Your task to perform on an android device: stop showing notifications on the lock screen Image 0: 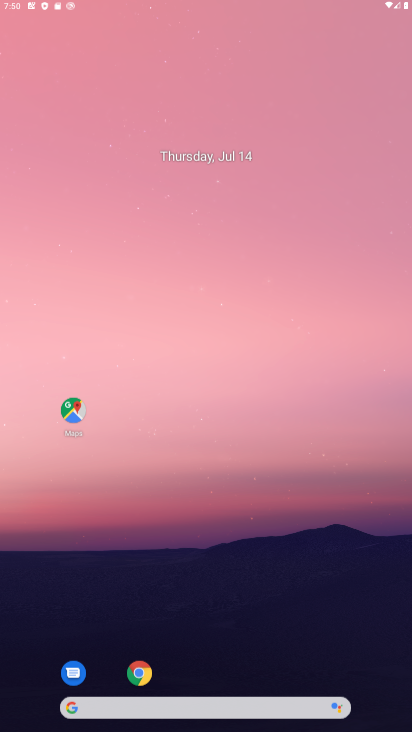
Step 0: drag from (311, 30) to (402, 1)
Your task to perform on an android device: stop showing notifications on the lock screen Image 1: 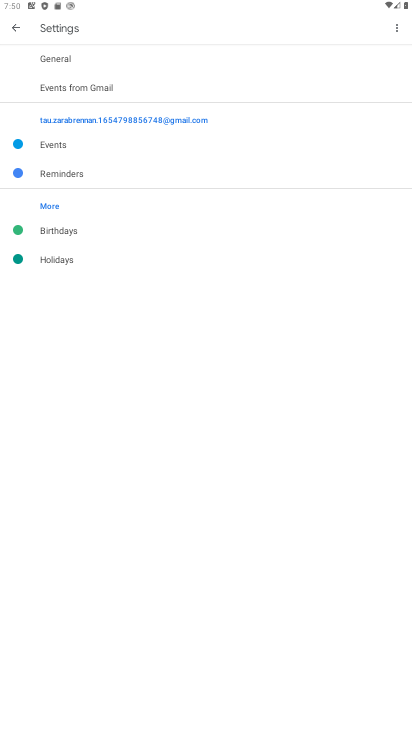
Step 1: press home button
Your task to perform on an android device: stop showing notifications on the lock screen Image 2: 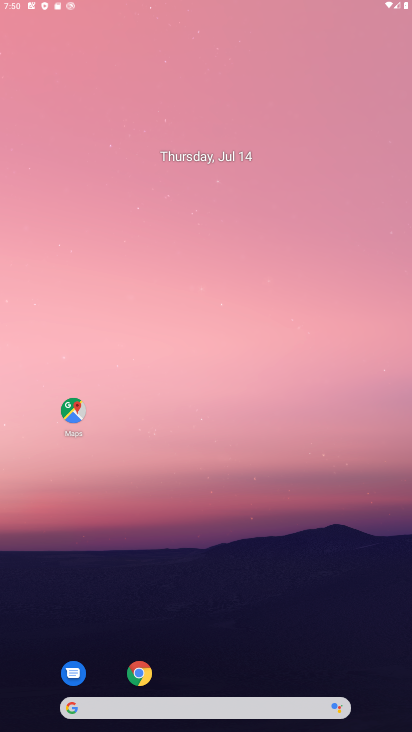
Step 2: drag from (154, 446) to (145, 55)
Your task to perform on an android device: stop showing notifications on the lock screen Image 3: 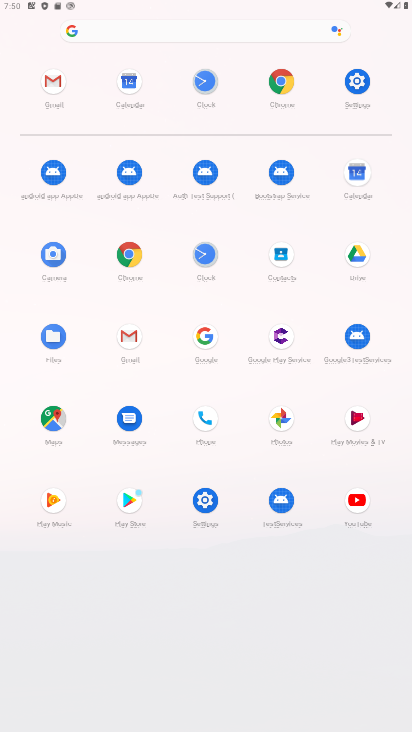
Step 3: click (202, 498)
Your task to perform on an android device: stop showing notifications on the lock screen Image 4: 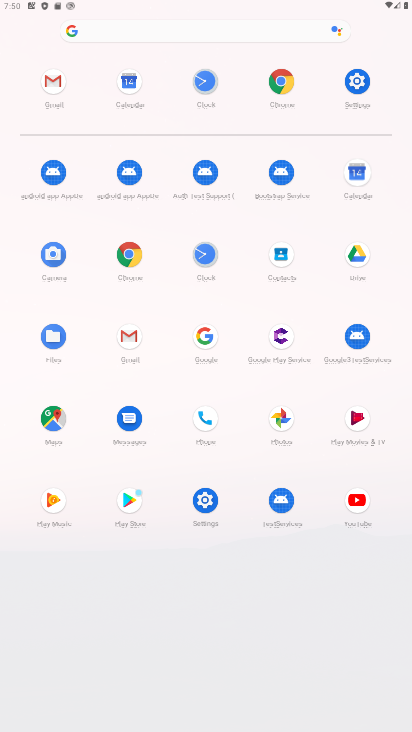
Step 4: click (201, 496)
Your task to perform on an android device: stop showing notifications on the lock screen Image 5: 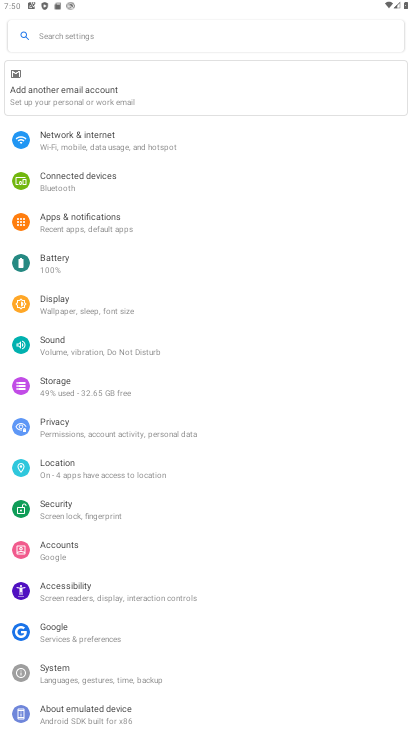
Step 5: click (126, 222)
Your task to perform on an android device: stop showing notifications on the lock screen Image 6: 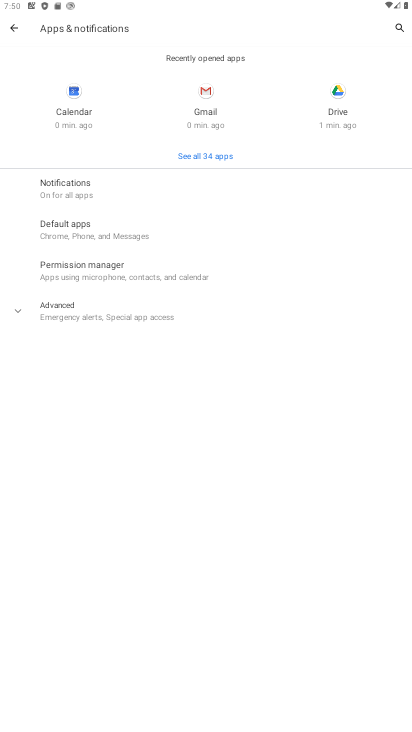
Step 6: click (108, 186)
Your task to perform on an android device: stop showing notifications on the lock screen Image 7: 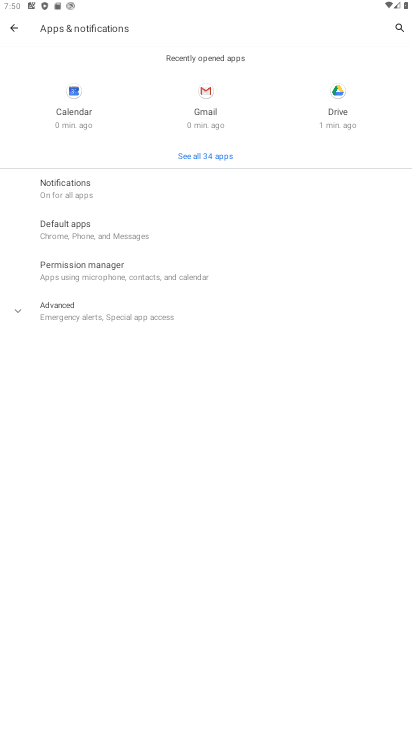
Step 7: click (108, 186)
Your task to perform on an android device: stop showing notifications on the lock screen Image 8: 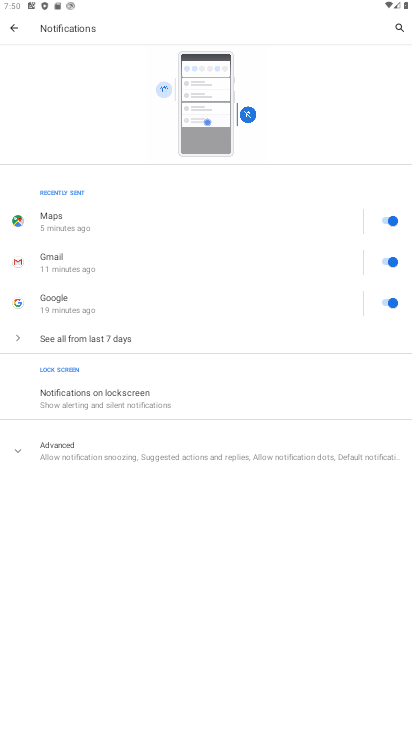
Step 8: click (123, 393)
Your task to perform on an android device: stop showing notifications on the lock screen Image 9: 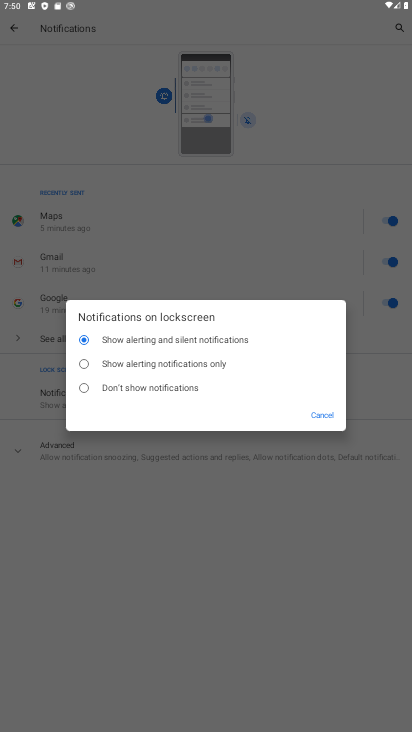
Step 9: click (116, 384)
Your task to perform on an android device: stop showing notifications on the lock screen Image 10: 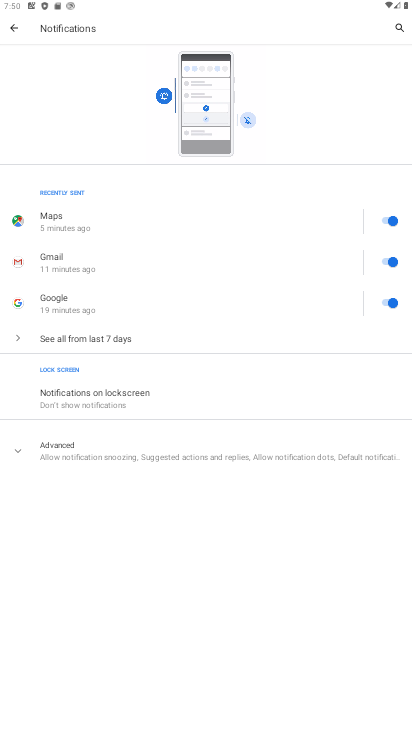
Step 10: task complete